Your task to perform on an android device: turn on priority inbox in the gmail app Image 0: 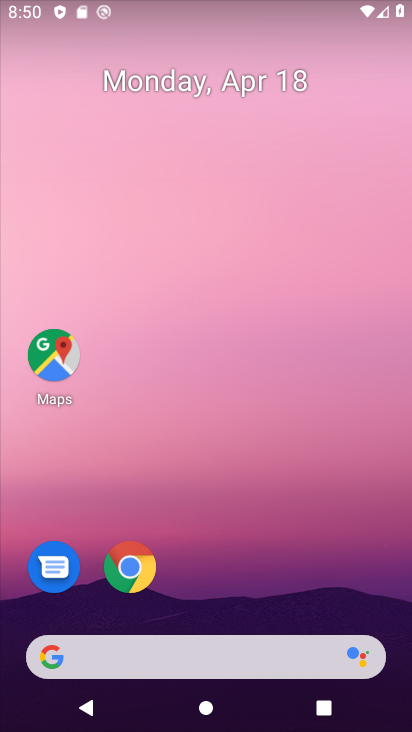
Step 0: drag from (231, 546) to (298, 168)
Your task to perform on an android device: turn on priority inbox in the gmail app Image 1: 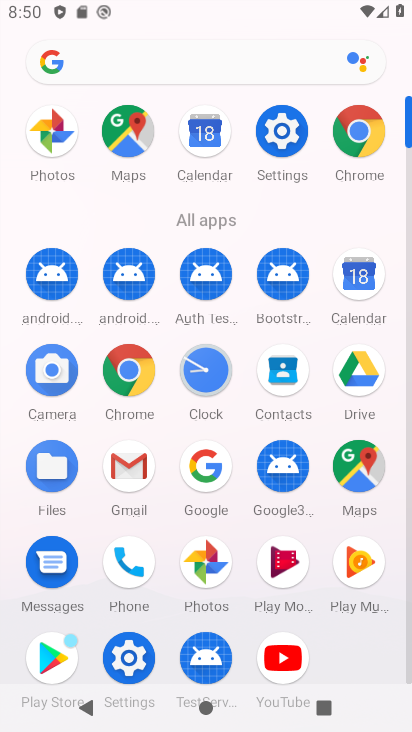
Step 1: click (142, 463)
Your task to perform on an android device: turn on priority inbox in the gmail app Image 2: 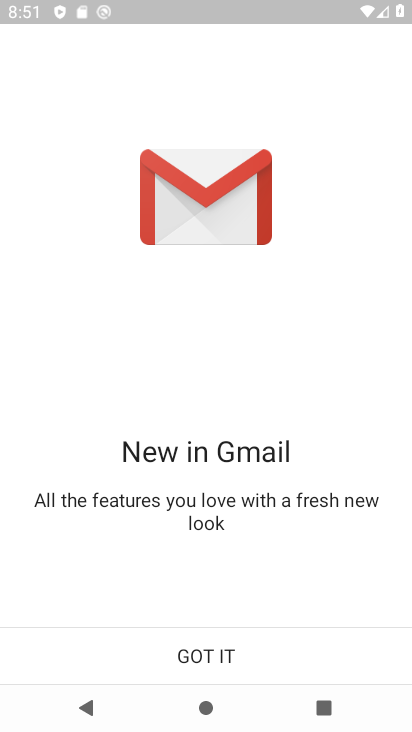
Step 2: click (197, 647)
Your task to perform on an android device: turn on priority inbox in the gmail app Image 3: 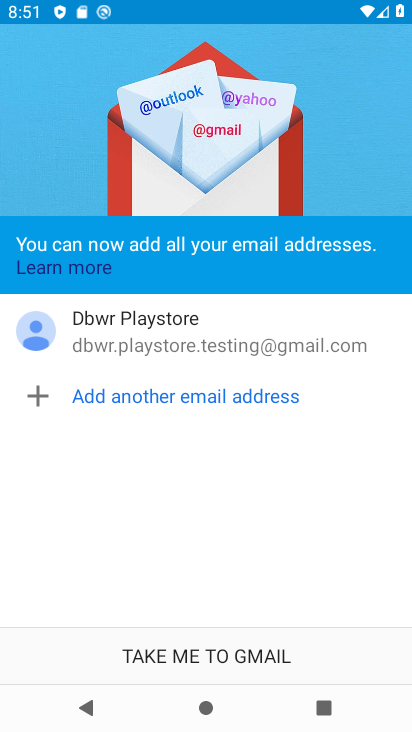
Step 3: click (179, 651)
Your task to perform on an android device: turn on priority inbox in the gmail app Image 4: 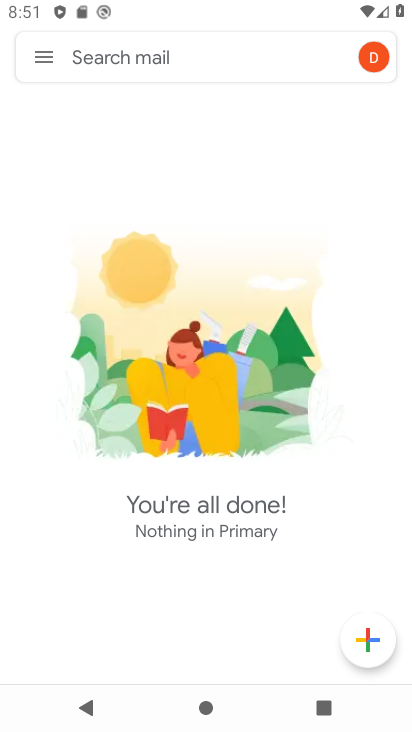
Step 4: click (44, 60)
Your task to perform on an android device: turn on priority inbox in the gmail app Image 5: 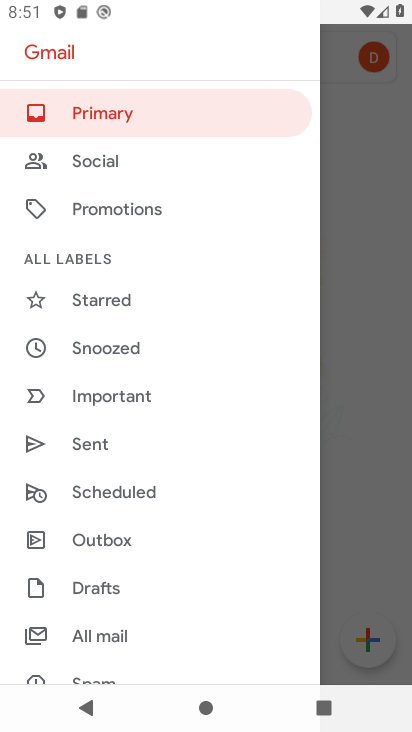
Step 5: drag from (128, 642) to (180, 158)
Your task to perform on an android device: turn on priority inbox in the gmail app Image 6: 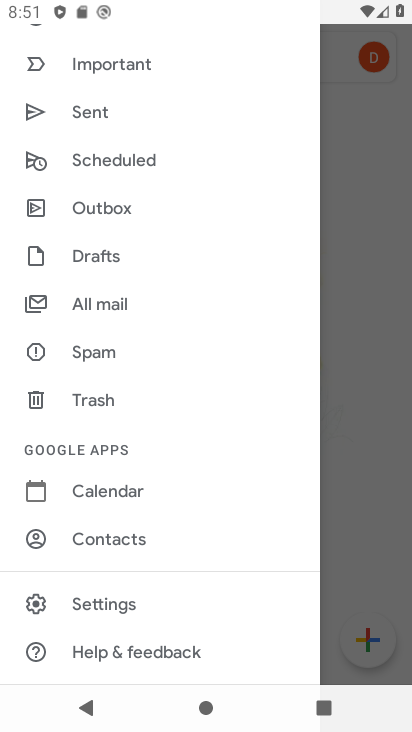
Step 6: click (104, 605)
Your task to perform on an android device: turn on priority inbox in the gmail app Image 7: 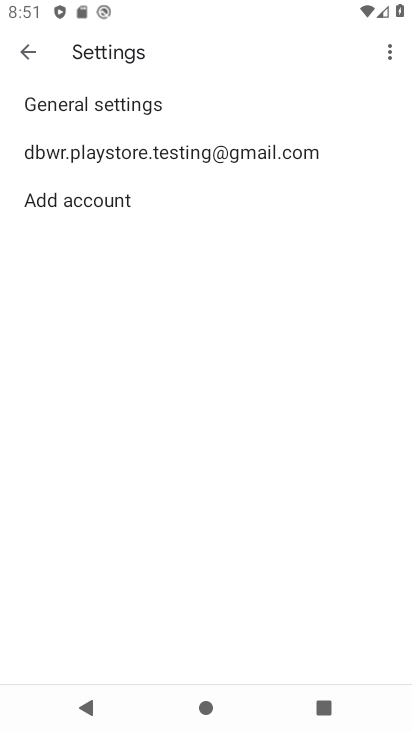
Step 7: click (177, 154)
Your task to perform on an android device: turn on priority inbox in the gmail app Image 8: 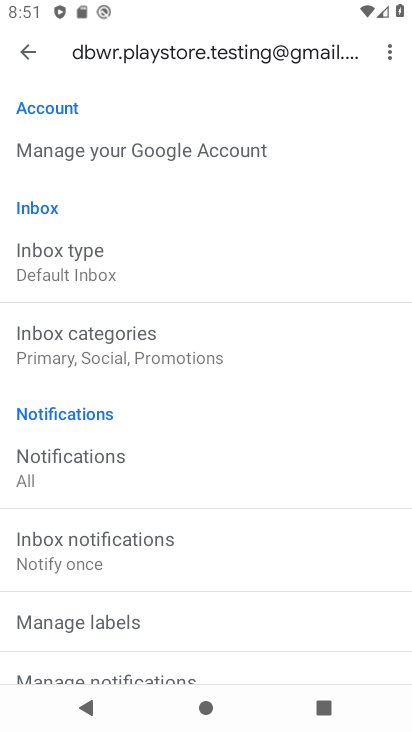
Step 8: click (129, 266)
Your task to perform on an android device: turn on priority inbox in the gmail app Image 9: 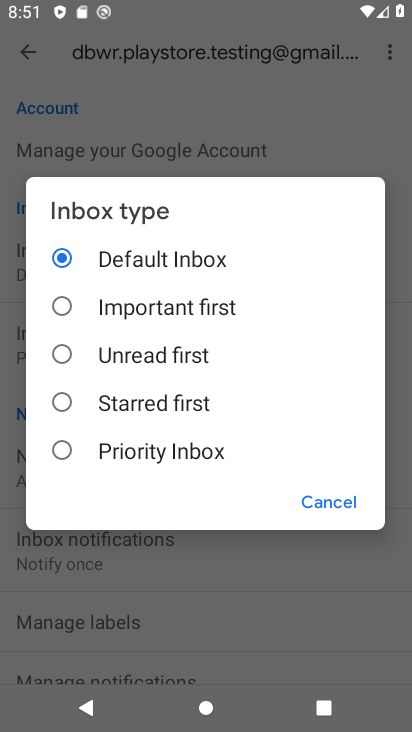
Step 9: click (118, 453)
Your task to perform on an android device: turn on priority inbox in the gmail app Image 10: 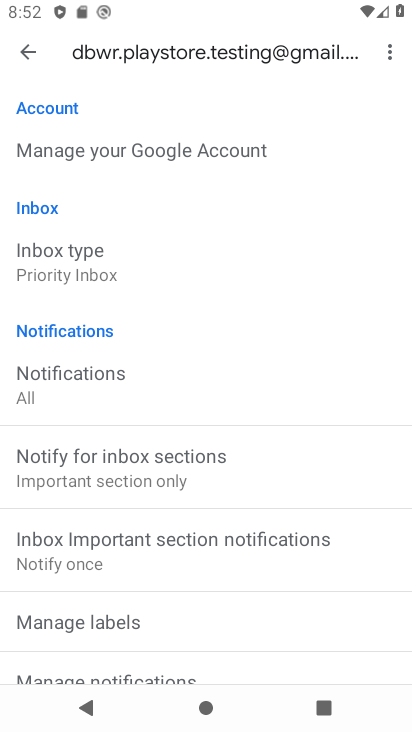
Step 10: task complete